Your task to perform on an android device: allow cookies in the chrome app Image 0: 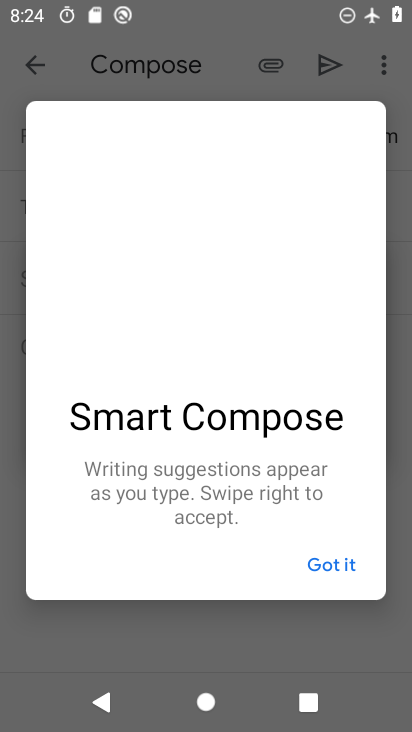
Step 0: press home button
Your task to perform on an android device: allow cookies in the chrome app Image 1: 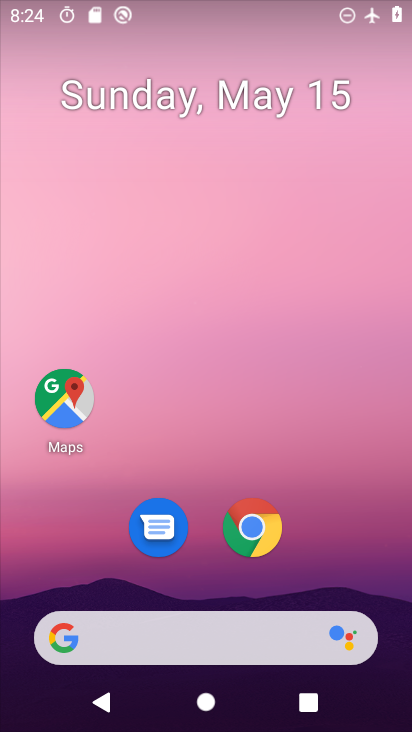
Step 1: click (254, 544)
Your task to perform on an android device: allow cookies in the chrome app Image 2: 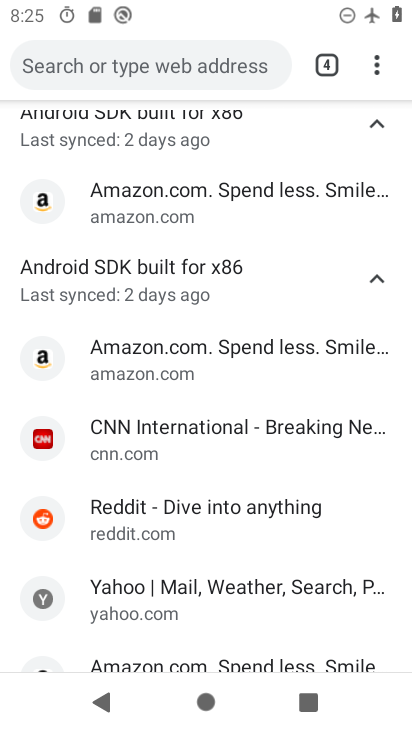
Step 2: drag from (377, 61) to (187, 543)
Your task to perform on an android device: allow cookies in the chrome app Image 3: 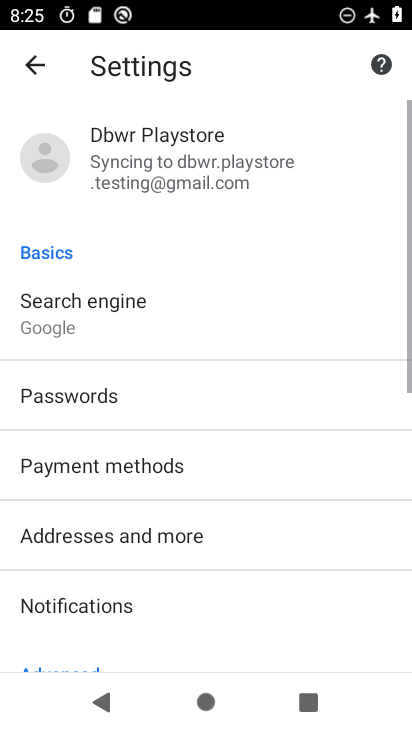
Step 3: drag from (180, 572) to (225, 134)
Your task to perform on an android device: allow cookies in the chrome app Image 4: 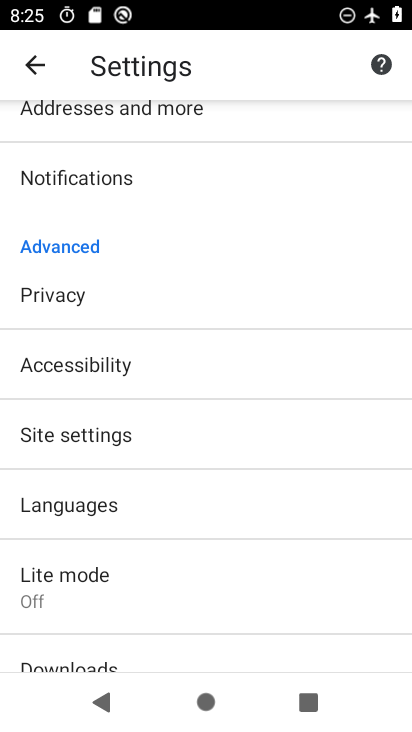
Step 4: click (120, 449)
Your task to perform on an android device: allow cookies in the chrome app Image 5: 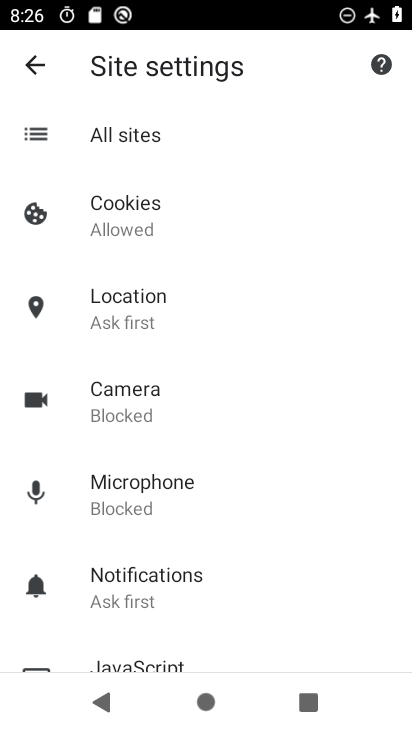
Step 5: click (147, 215)
Your task to perform on an android device: allow cookies in the chrome app Image 6: 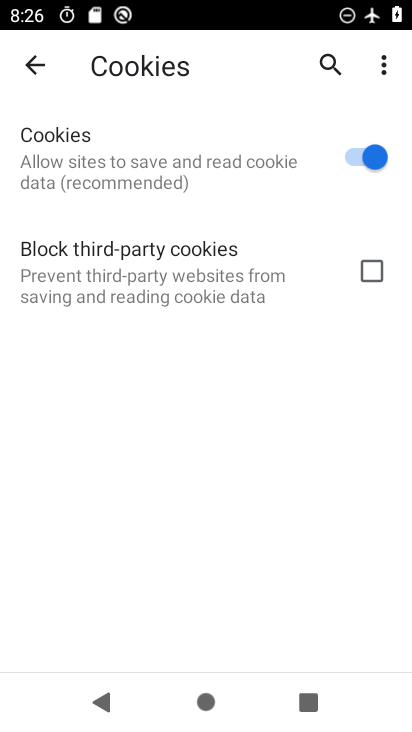
Step 6: task complete